Your task to perform on an android device: Show me the alarms in the clock app Image 0: 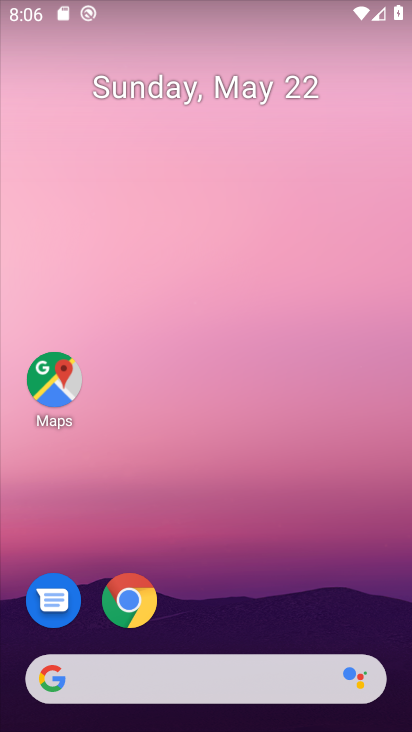
Step 0: drag from (214, 665) to (209, 279)
Your task to perform on an android device: Show me the alarms in the clock app Image 1: 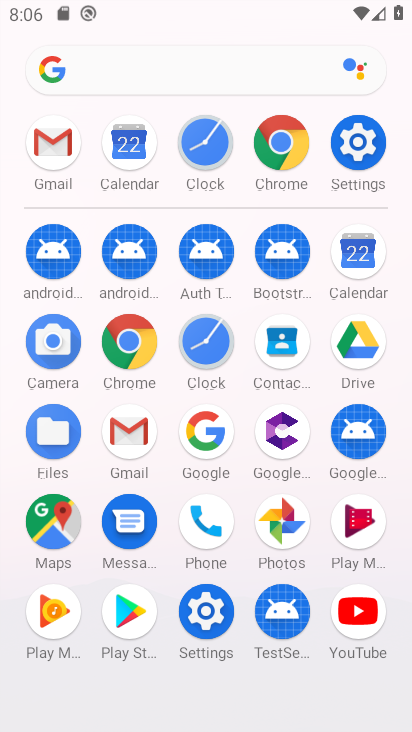
Step 1: click (209, 347)
Your task to perform on an android device: Show me the alarms in the clock app Image 2: 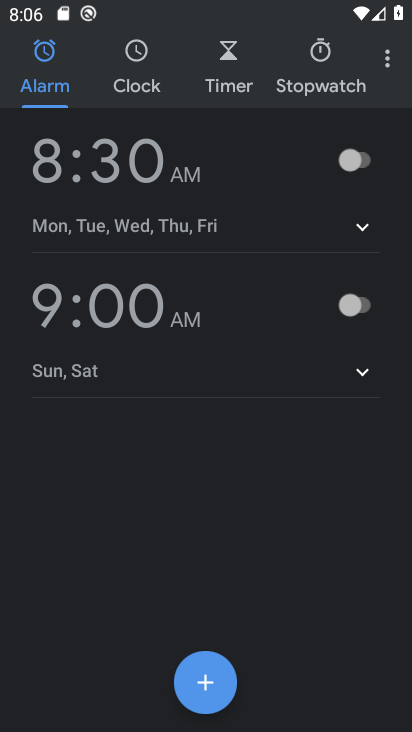
Step 2: click (389, 61)
Your task to perform on an android device: Show me the alarms in the clock app Image 3: 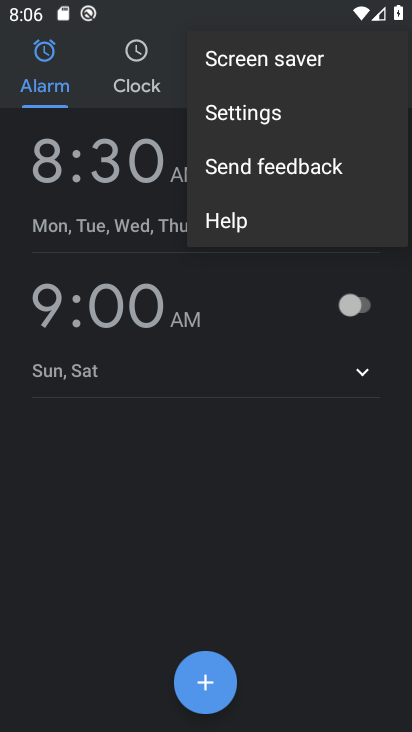
Step 3: click (258, 534)
Your task to perform on an android device: Show me the alarms in the clock app Image 4: 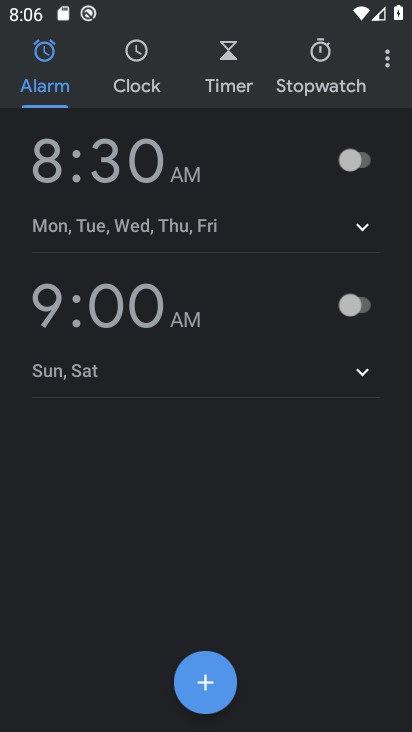
Step 4: task complete